Your task to perform on an android device: Go to battery settings Image 0: 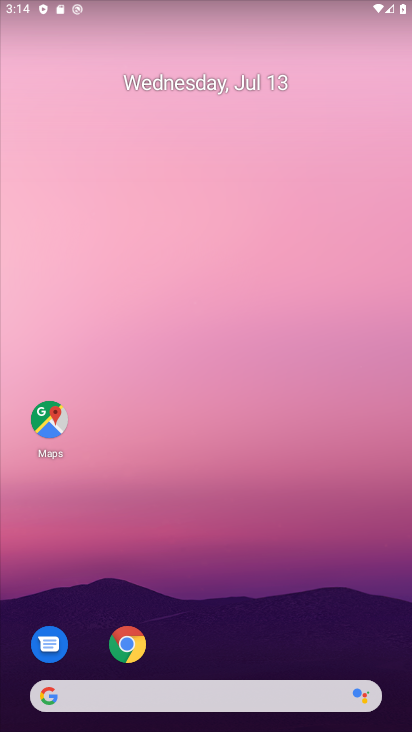
Step 0: drag from (210, 686) to (265, 44)
Your task to perform on an android device: Go to battery settings Image 1: 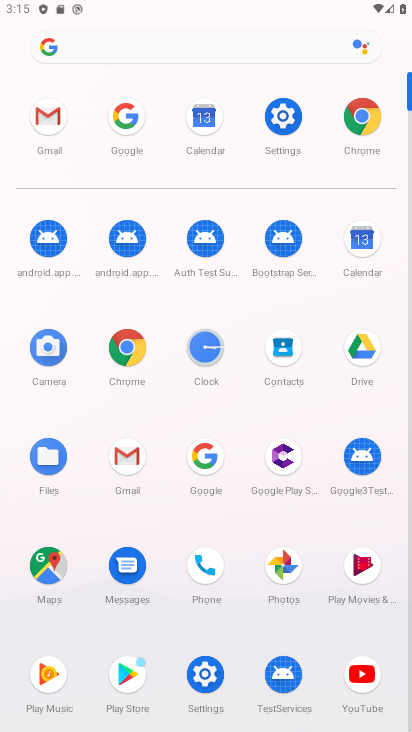
Step 1: click (284, 113)
Your task to perform on an android device: Go to battery settings Image 2: 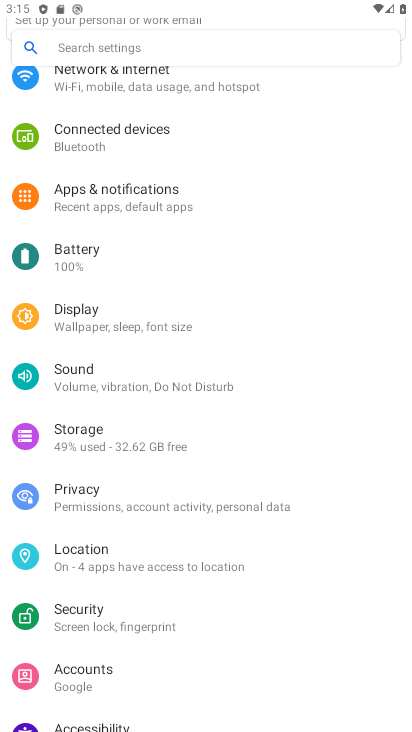
Step 2: click (106, 247)
Your task to perform on an android device: Go to battery settings Image 3: 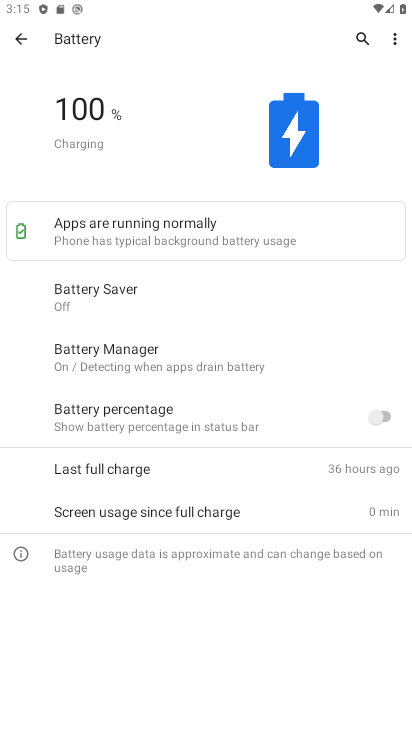
Step 3: task complete